Your task to perform on an android device: Open internet settings Image 0: 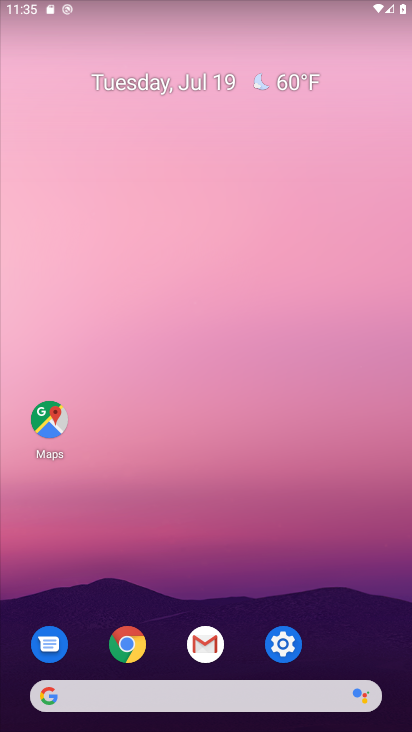
Step 0: click (289, 640)
Your task to perform on an android device: Open internet settings Image 1: 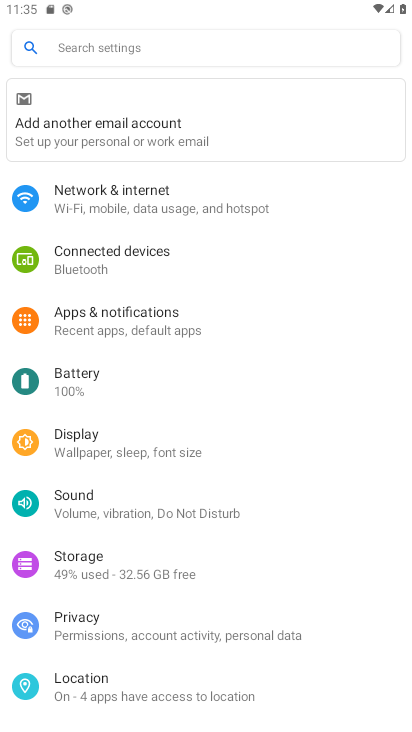
Step 1: click (106, 190)
Your task to perform on an android device: Open internet settings Image 2: 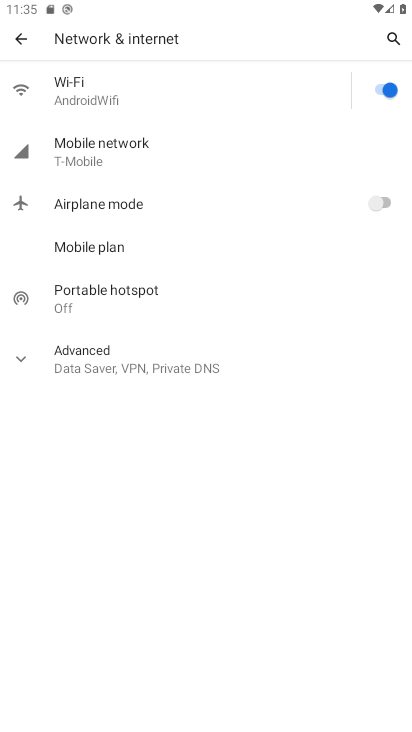
Step 2: task complete